Your task to perform on an android device: Add usb-a to usb-b to the cart on newegg.com Image 0: 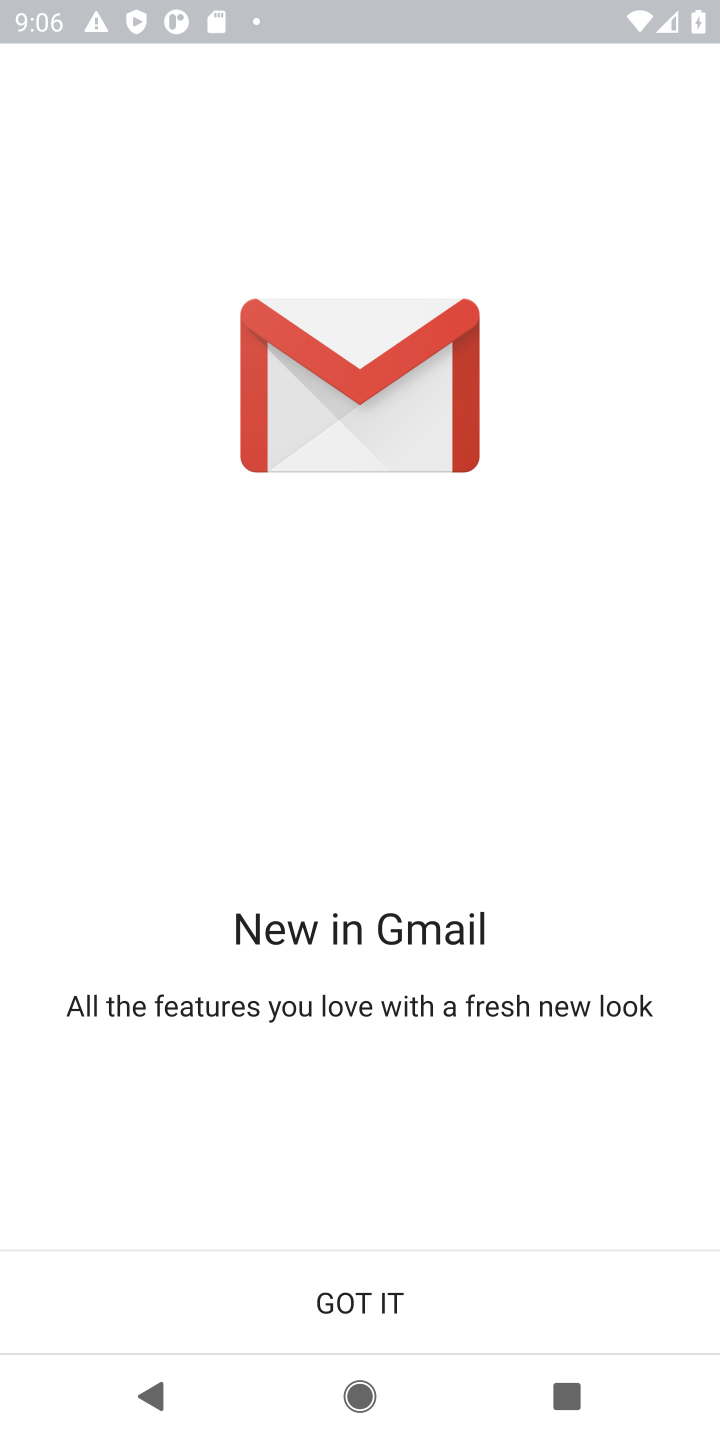
Step 0: press home button
Your task to perform on an android device: Add usb-a to usb-b to the cart on newegg.com Image 1: 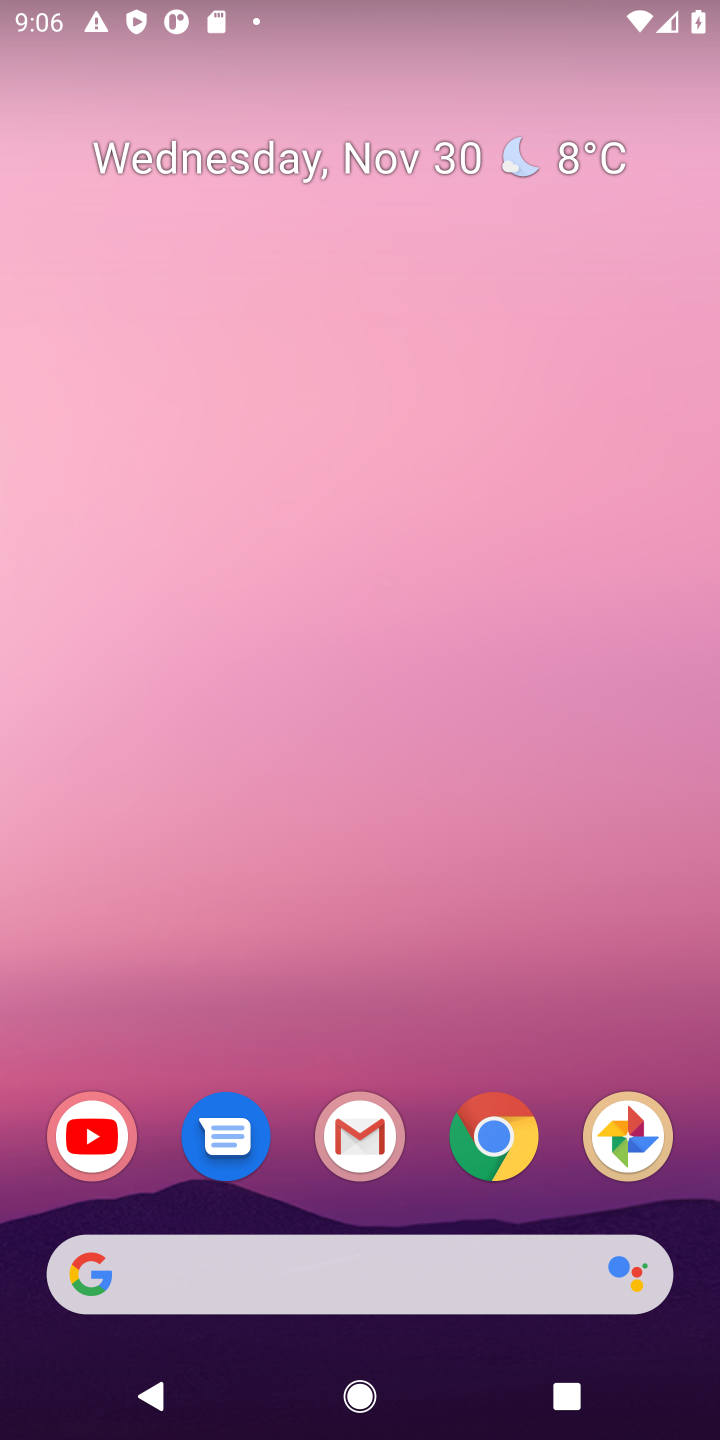
Step 1: click (488, 1150)
Your task to perform on an android device: Add usb-a to usb-b to the cart on newegg.com Image 2: 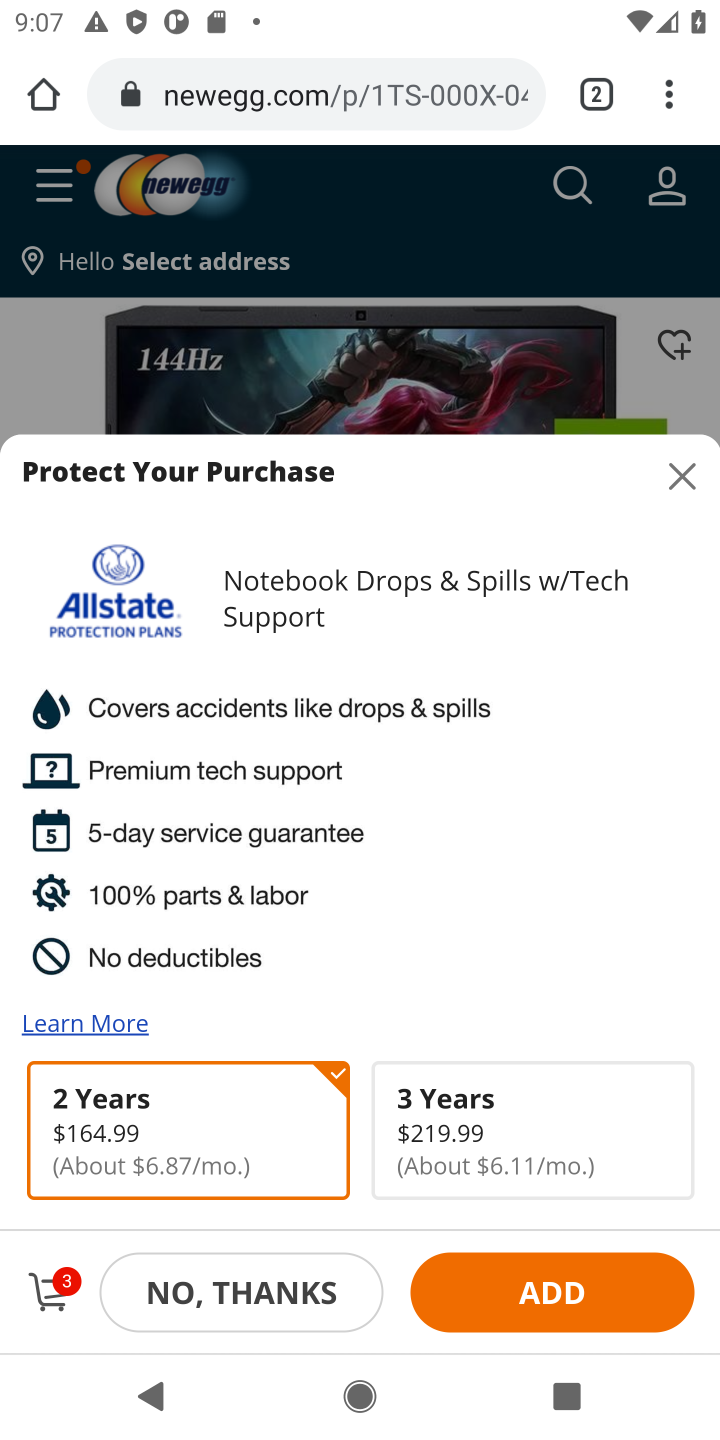
Step 2: click (687, 474)
Your task to perform on an android device: Add usb-a to usb-b to the cart on newegg.com Image 3: 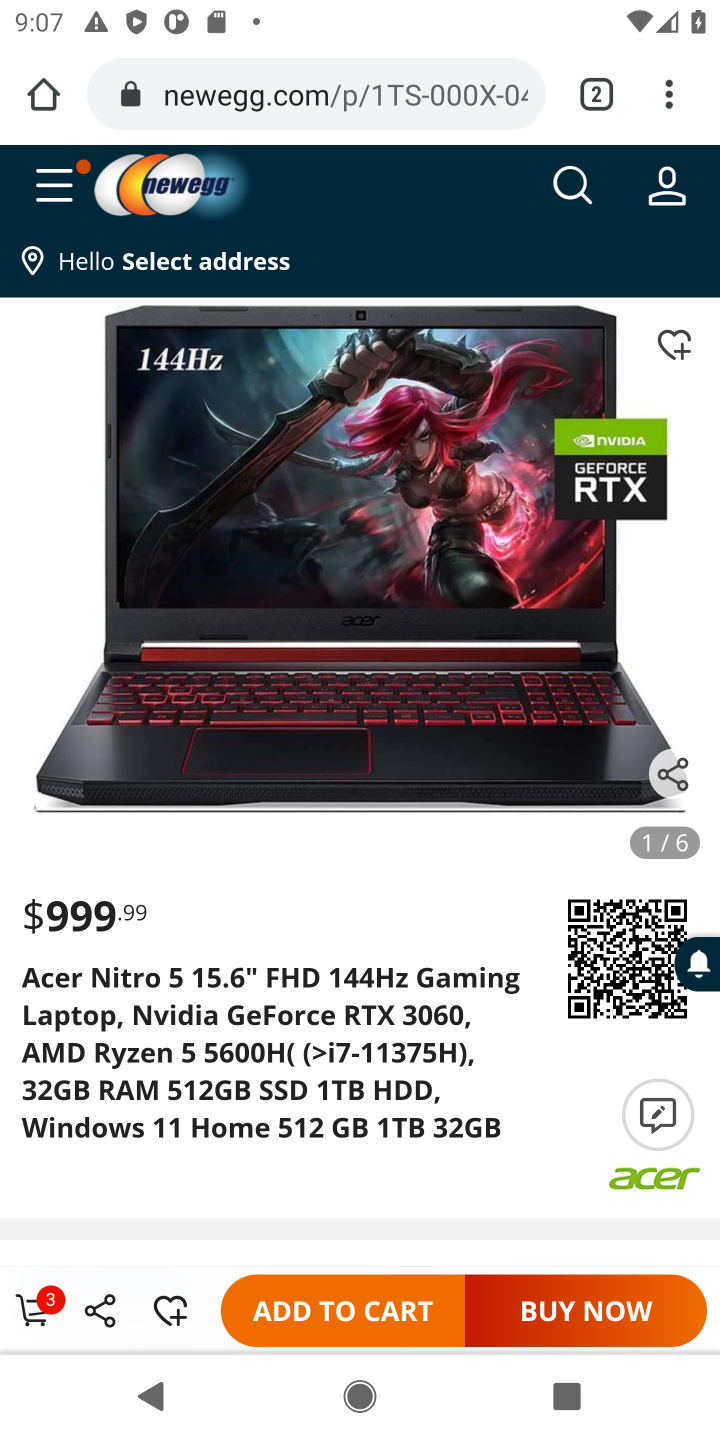
Step 3: click (581, 196)
Your task to perform on an android device: Add usb-a to usb-b to the cart on newegg.com Image 4: 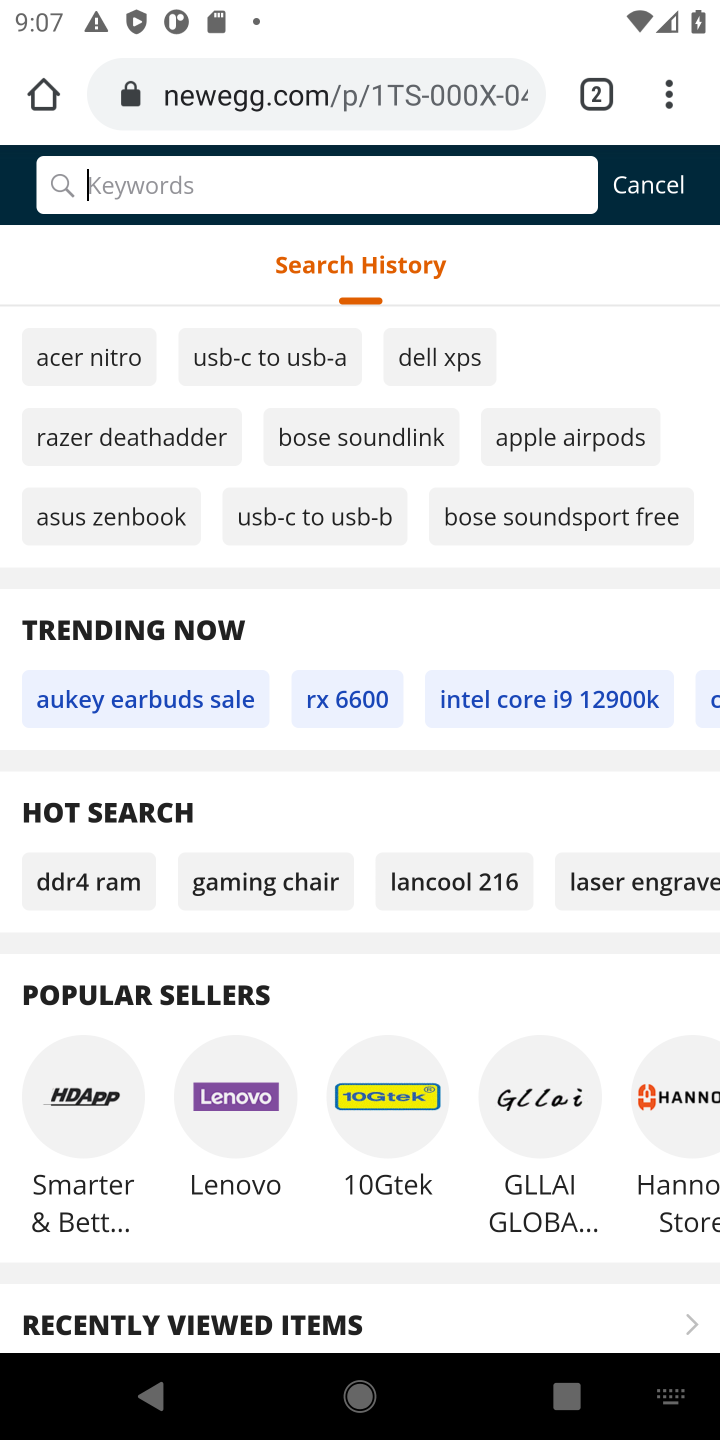
Step 4: type "usb-a to usb-b"
Your task to perform on an android device: Add usb-a to usb-b to the cart on newegg.com Image 5: 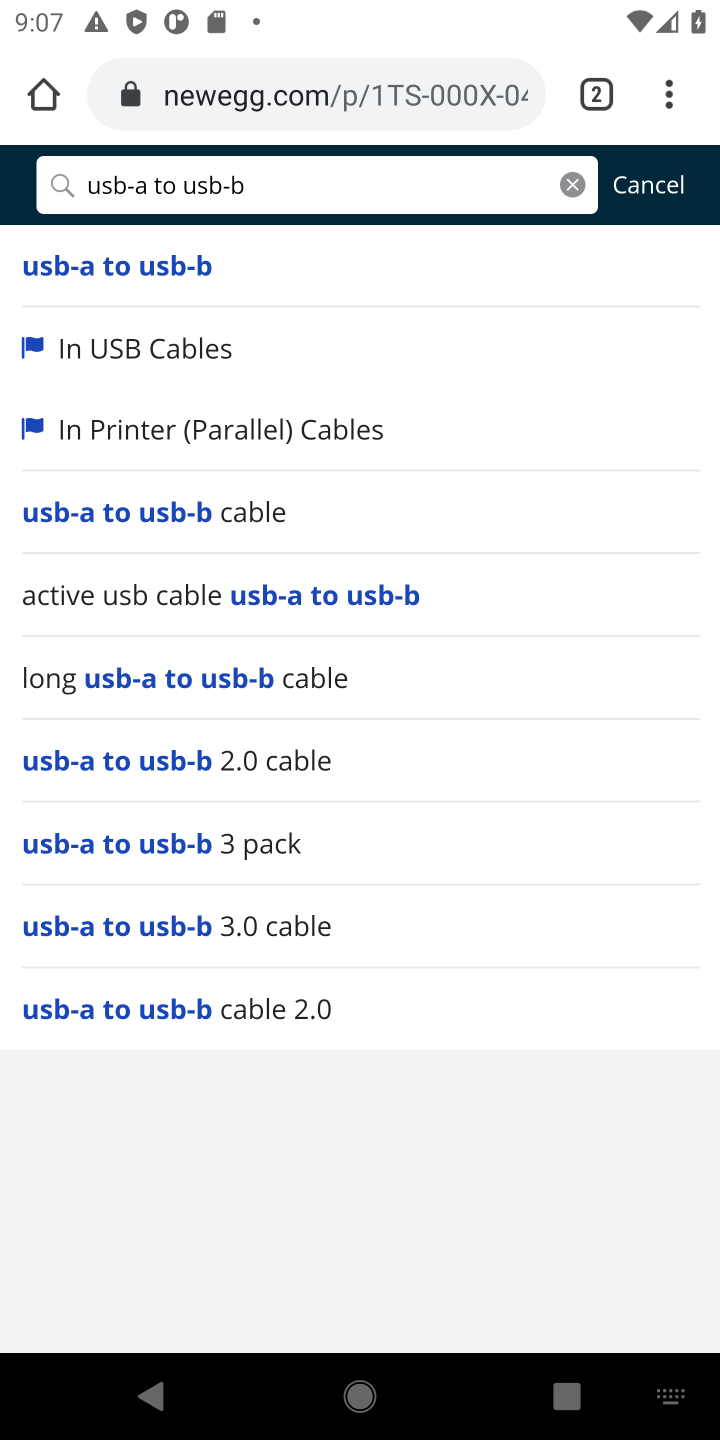
Step 5: click (126, 282)
Your task to perform on an android device: Add usb-a to usb-b to the cart on newegg.com Image 6: 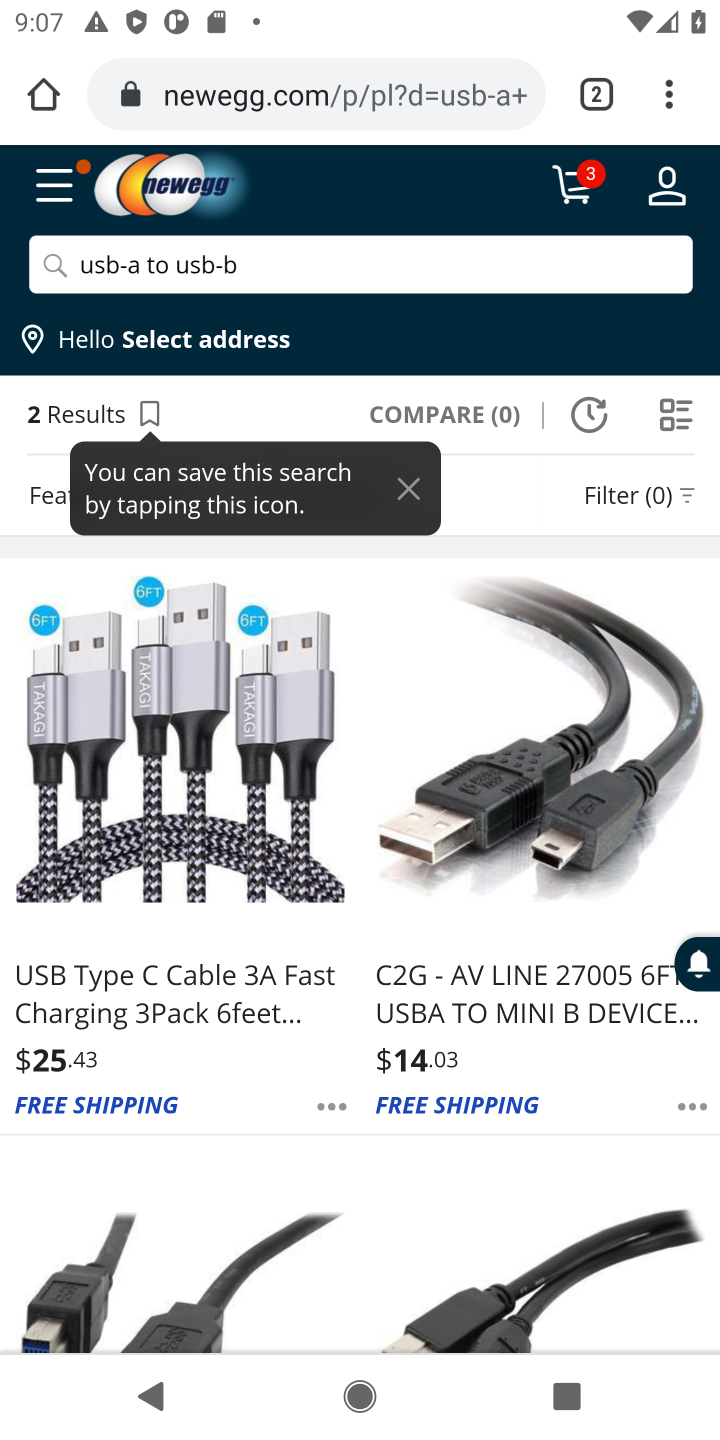
Step 6: drag from (158, 1046) to (115, 681)
Your task to perform on an android device: Add usb-a to usb-b to the cart on newegg.com Image 7: 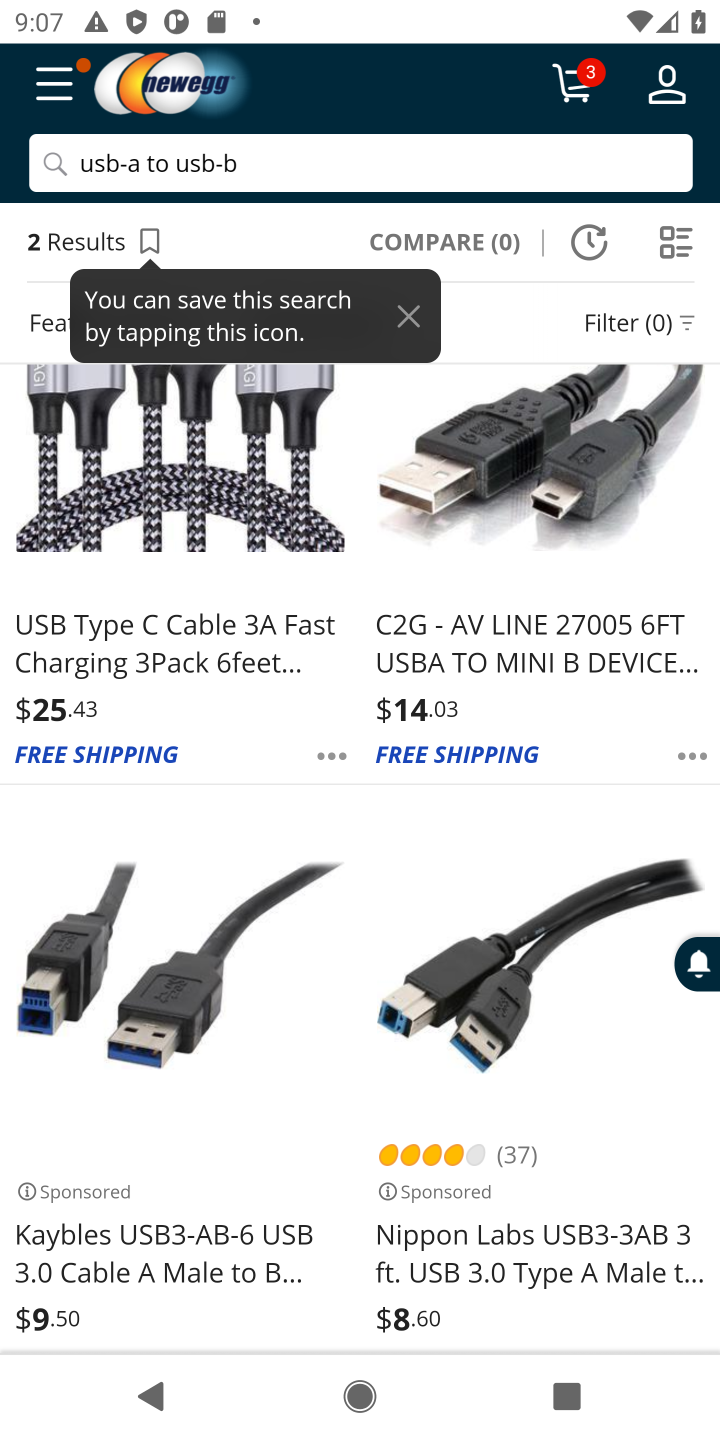
Step 7: drag from (258, 1092) to (277, 697)
Your task to perform on an android device: Add usb-a to usb-b to the cart on newegg.com Image 8: 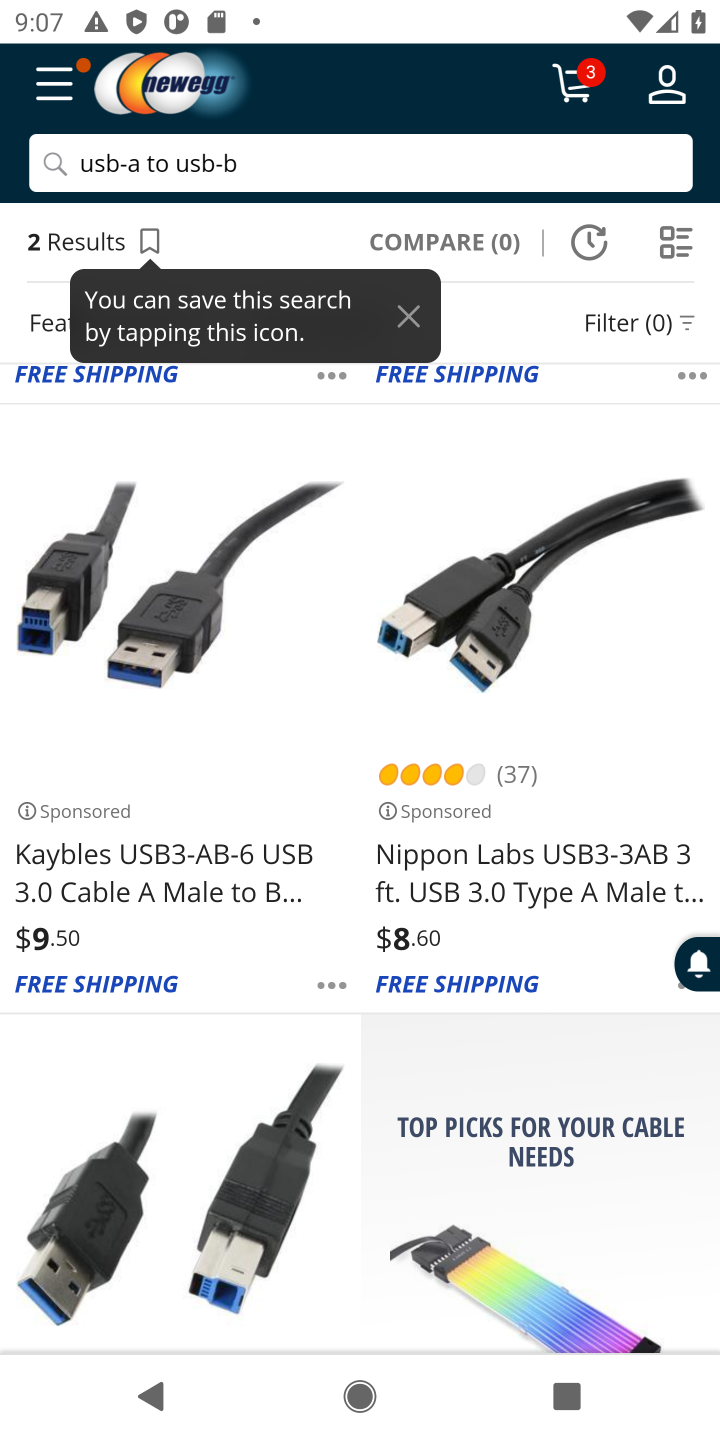
Step 8: click (188, 795)
Your task to perform on an android device: Add usb-a to usb-b to the cart on newegg.com Image 9: 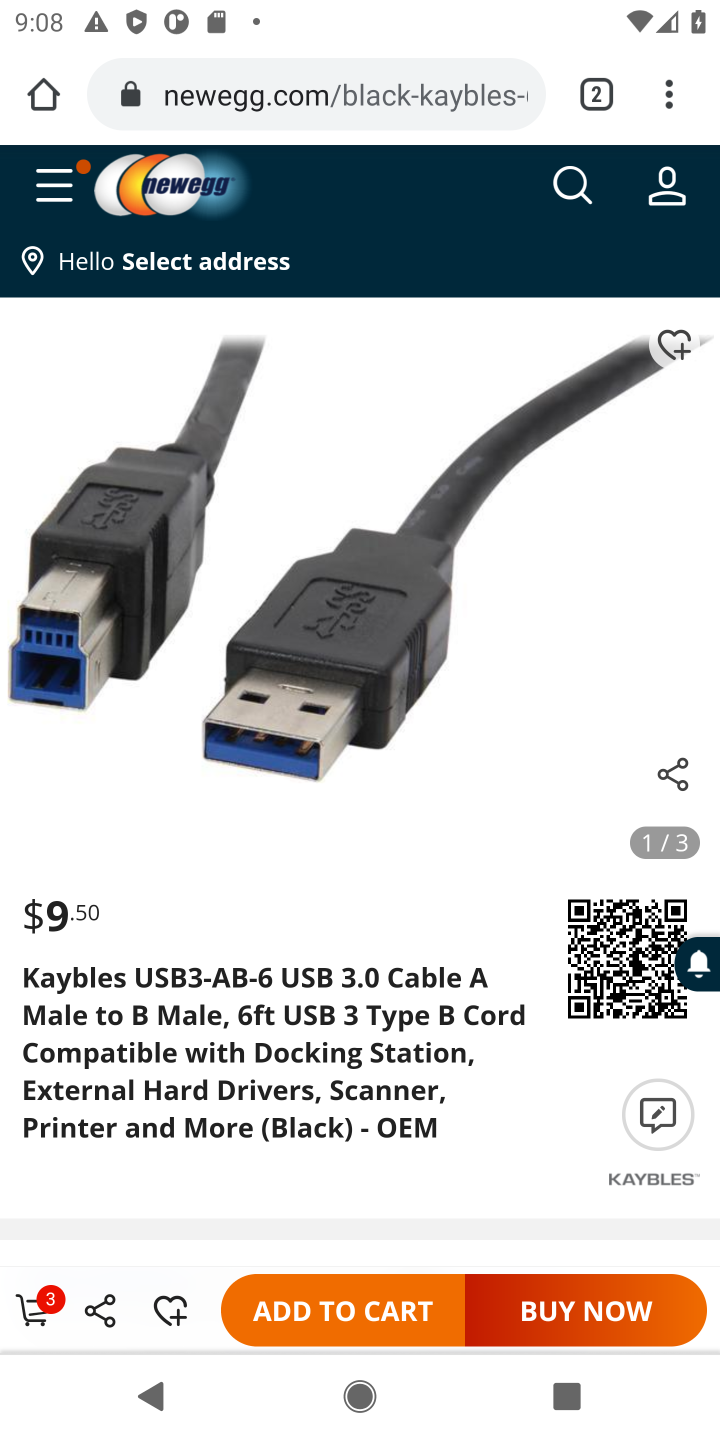
Step 9: click (314, 1297)
Your task to perform on an android device: Add usb-a to usb-b to the cart on newegg.com Image 10: 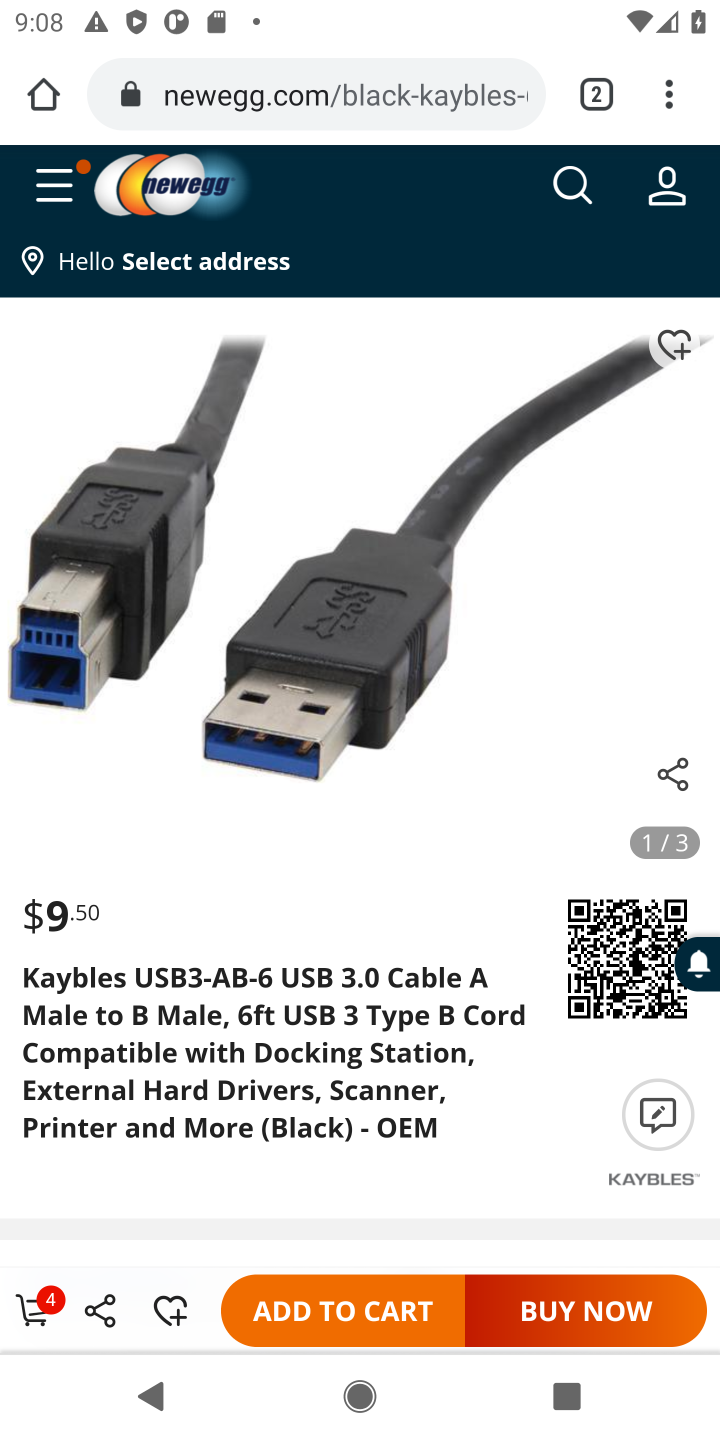
Step 10: task complete